Your task to perform on an android device: read, delete, or share a saved page in the chrome app Image 0: 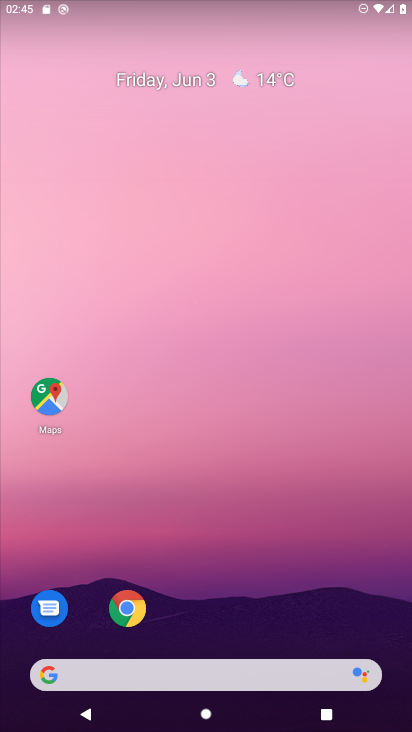
Step 0: drag from (290, 223) to (289, 169)
Your task to perform on an android device: read, delete, or share a saved page in the chrome app Image 1: 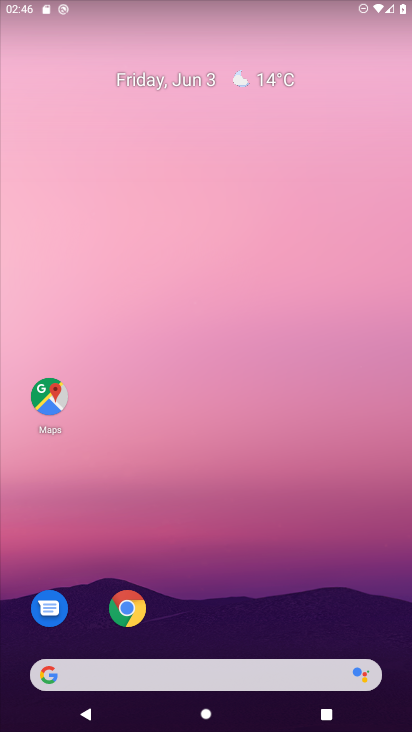
Step 1: click (125, 605)
Your task to perform on an android device: read, delete, or share a saved page in the chrome app Image 2: 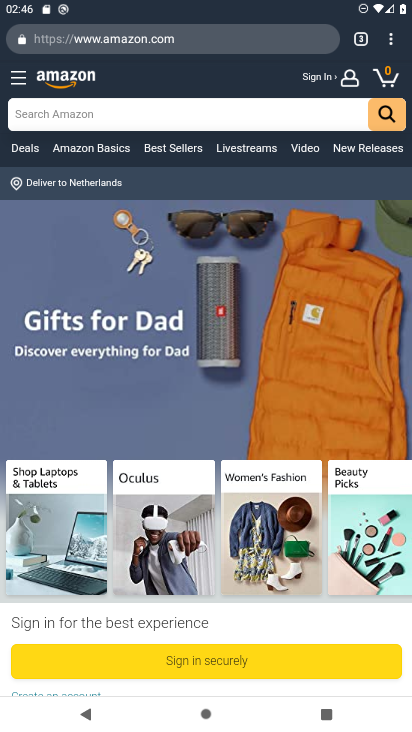
Step 2: task complete